Your task to perform on an android device: uninstall "Microsoft Excel" Image 0: 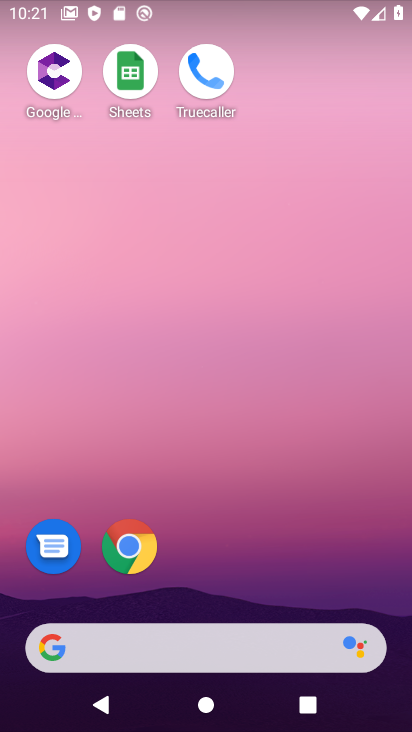
Step 0: drag from (211, 668) to (329, 0)
Your task to perform on an android device: uninstall "Microsoft Excel" Image 1: 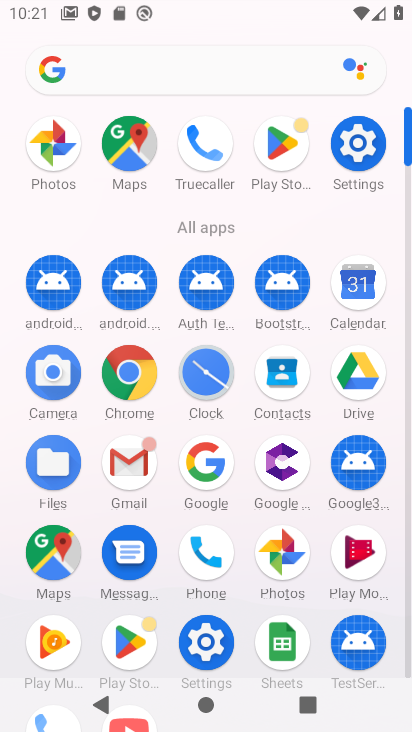
Step 1: click (260, 160)
Your task to perform on an android device: uninstall "Microsoft Excel" Image 2: 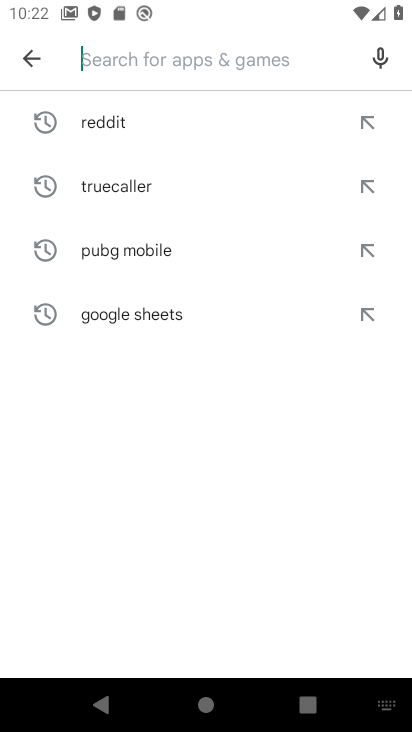
Step 2: type "microsoft excel"
Your task to perform on an android device: uninstall "Microsoft Excel" Image 3: 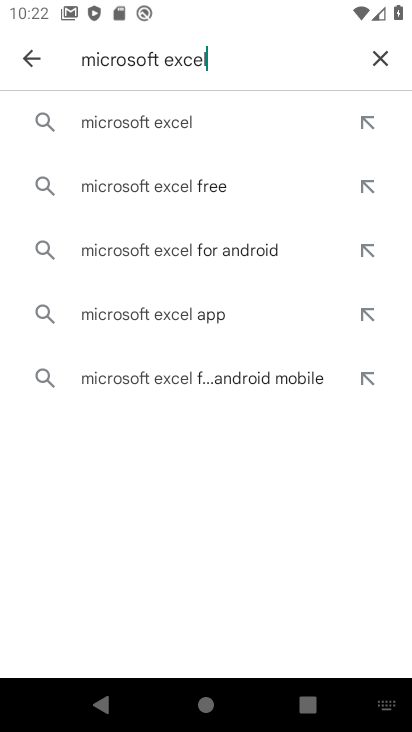
Step 3: click (204, 135)
Your task to perform on an android device: uninstall "Microsoft Excel" Image 4: 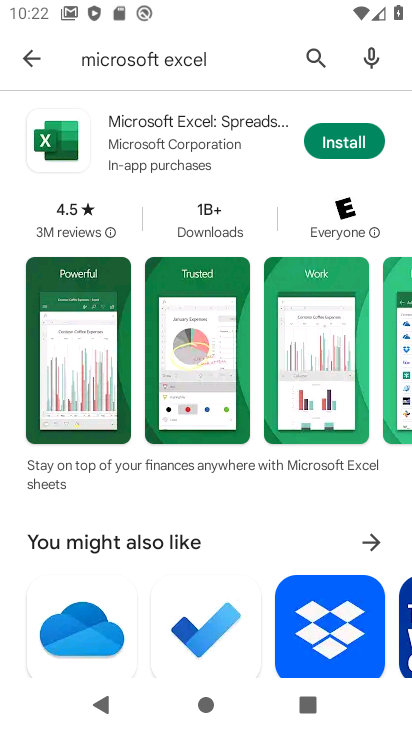
Step 4: task complete